Your task to perform on an android device: turn pop-ups on in chrome Image 0: 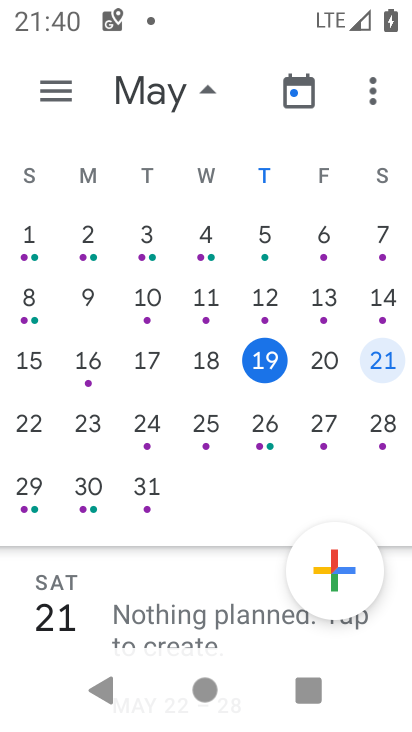
Step 0: drag from (143, 612) to (214, 254)
Your task to perform on an android device: turn pop-ups on in chrome Image 1: 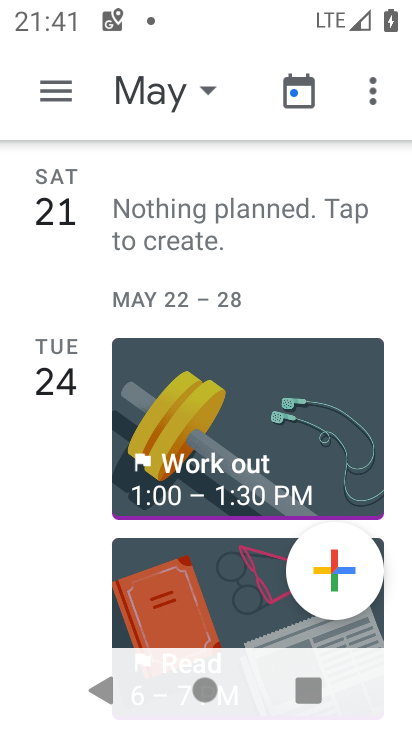
Step 1: drag from (219, 586) to (262, 559)
Your task to perform on an android device: turn pop-ups on in chrome Image 2: 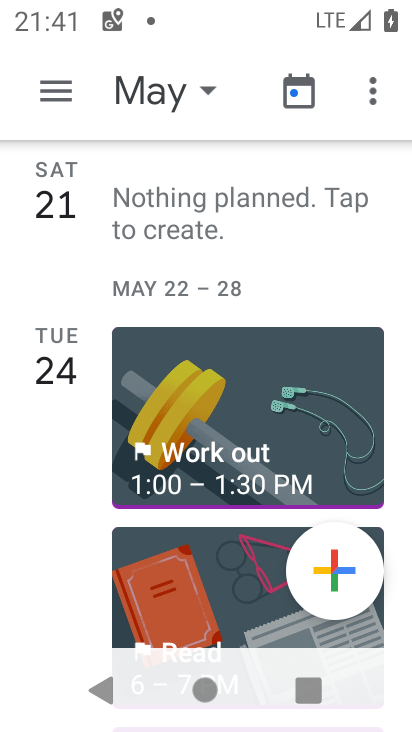
Step 2: press home button
Your task to perform on an android device: turn pop-ups on in chrome Image 3: 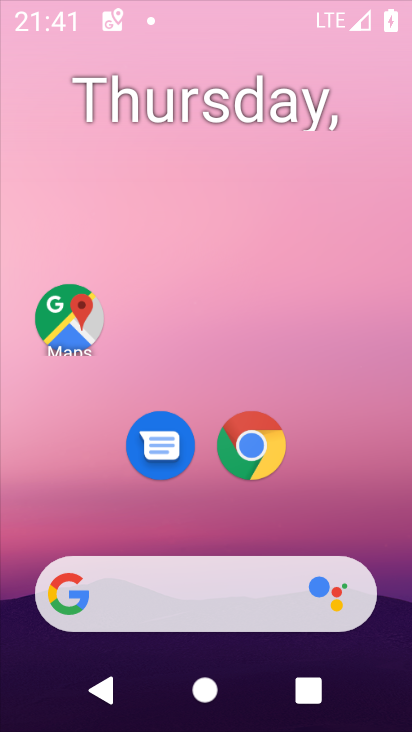
Step 3: drag from (124, 519) to (241, 19)
Your task to perform on an android device: turn pop-ups on in chrome Image 4: 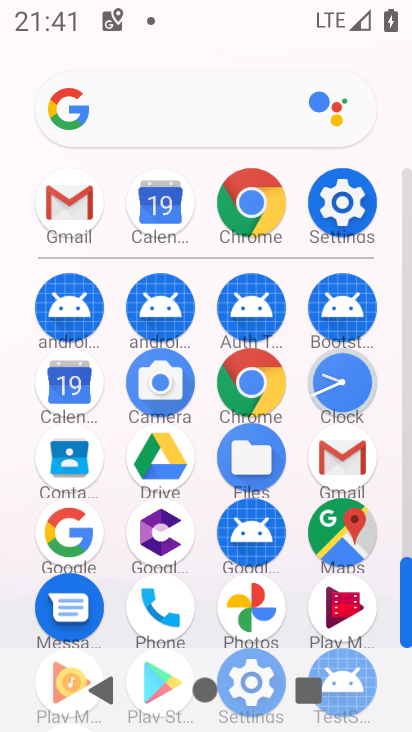
Step 4: click (246, 190)
Your task to perform on an android device: turn pop-ups on in chrome Image 5: 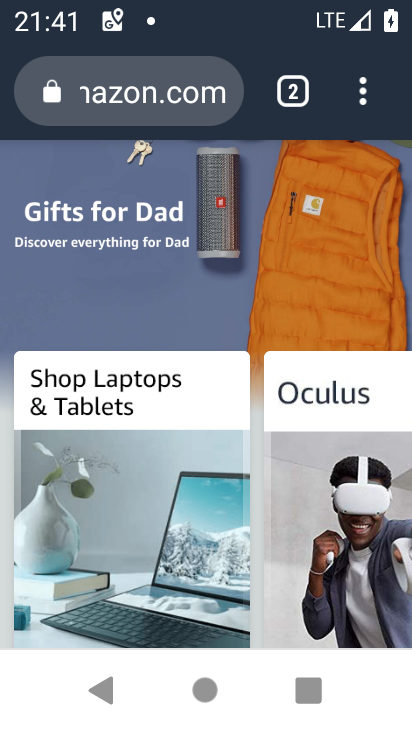
Step 5: click (348, 85)
Your task to perform on an android device: turn pop-ups on in chrome Image 6: 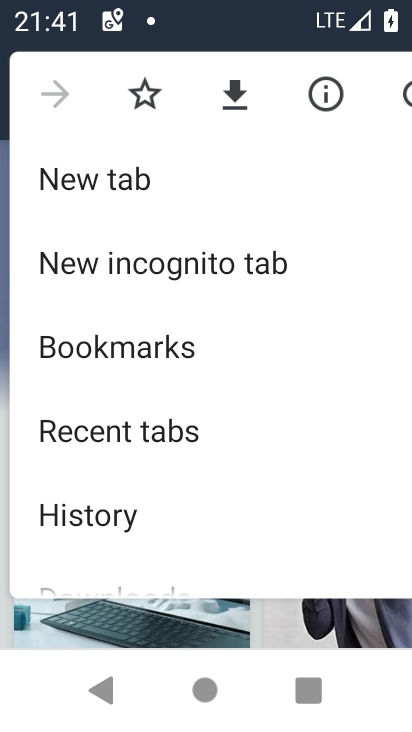
Step 6: drag from (153, 530) to (277, 63)
Your task to perform on an android device: turn pop-ups on in chrome Image 7: 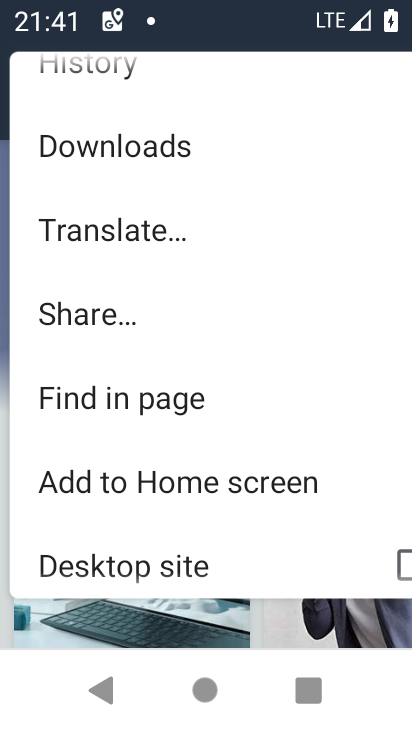
Step 7: drag from (176, 539) to (292, 88)
Your task to perform on an android device: turn pop-ups on in chrome Image 8: 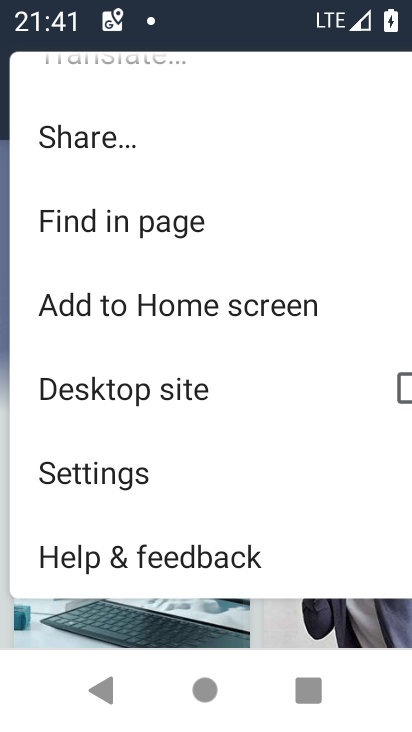
Step 8: click (170, 481)
Your task to perform on an android device: turn pop-ups on in chrome Image 9: 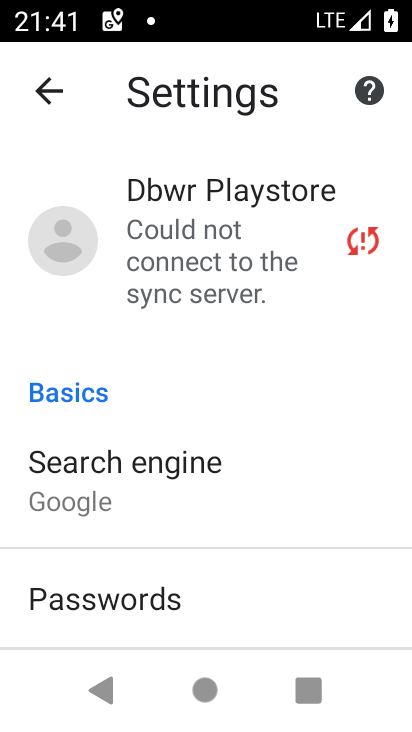
Step 9: drag from (260, 610) to (190, 9)
Your task to perform on an android device: turn pop-ups on in chrome Image 10: 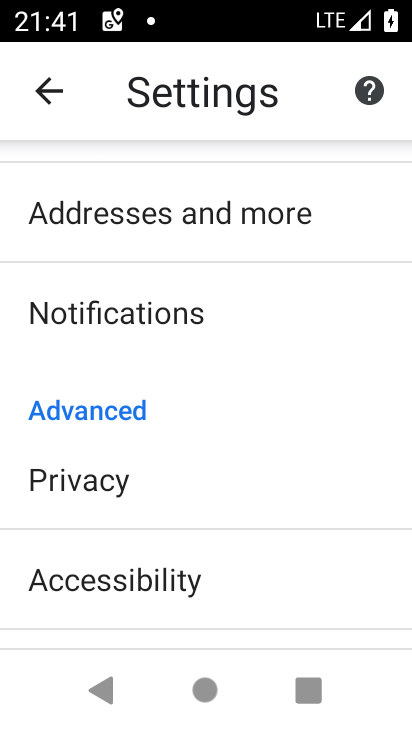
Step 10: drag from (178, 527) to (227, 42)
Your task to perform on an android device: turn pop-ups on in chrome Image 11: 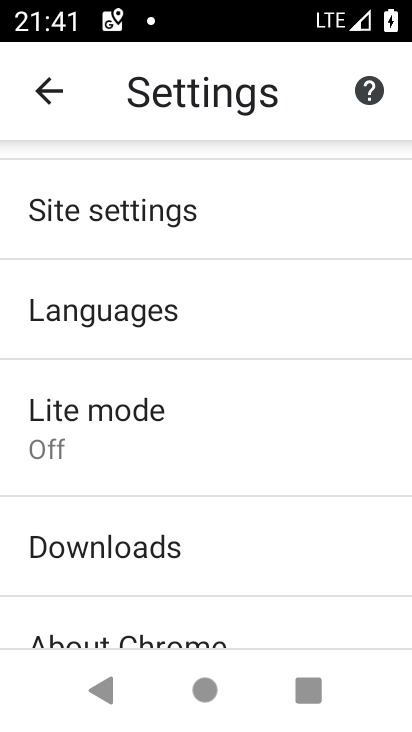
Step 11: click (130, 248)
Your task to perform on an android device: turn pop-ups on in chrome Image 12: 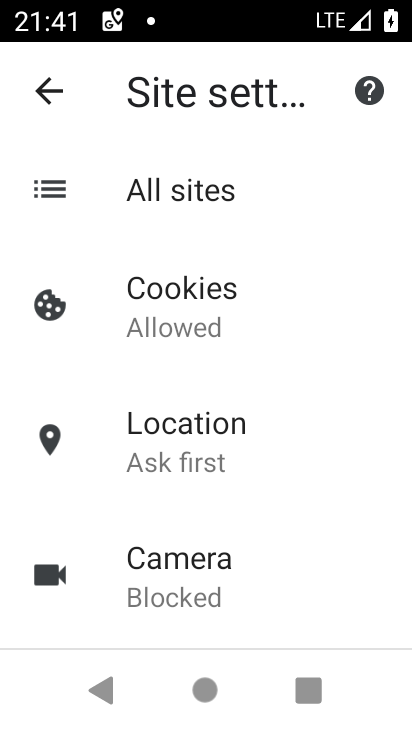
Step 12: drag from (237, 556) to (360, 115)
Your task to perform on an android device: turn pop-ups on in chrome Image 13: 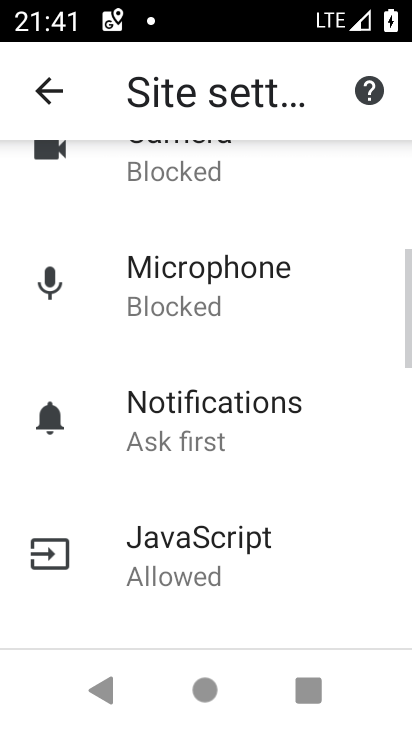
Step 13: drag from (205, 493) to (205, 149)
Your task to perform on an android device: turn pop-ups on in chrome Image 14: 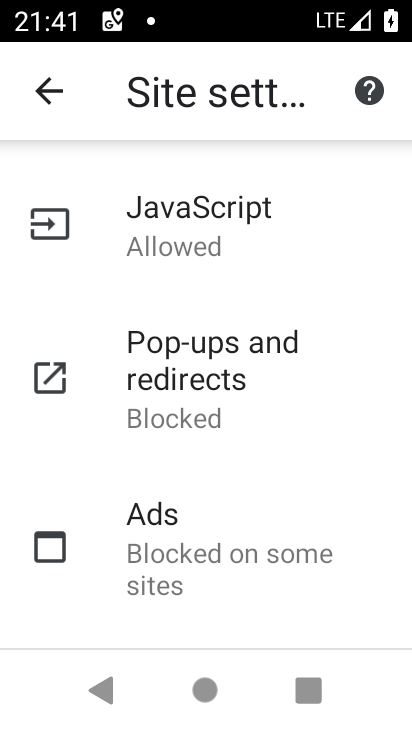
Step 14: click (123, 363)
Your task to perform on an android device: turn pop-ups on in chrome Image 15: 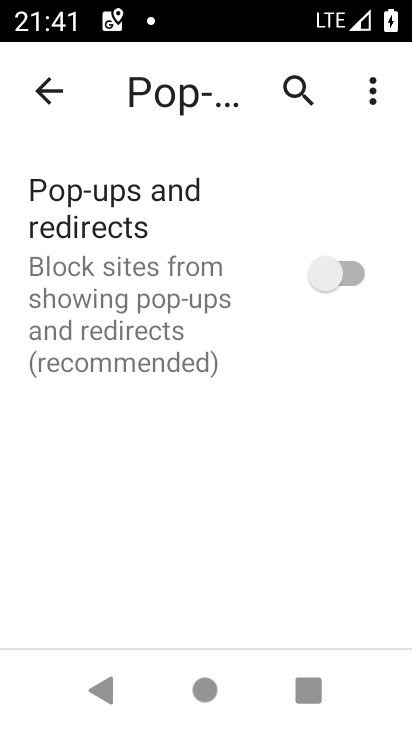
Step 15: click (238, 277)
Your task to perform on an android device: turn pop-ups on in chrome Image 16: 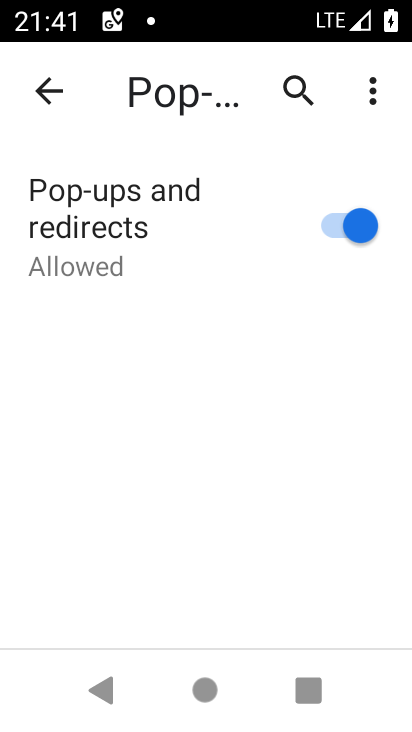
Step 16: task complete